Your task to perform on an android device: empty trash in google photos Image 0: 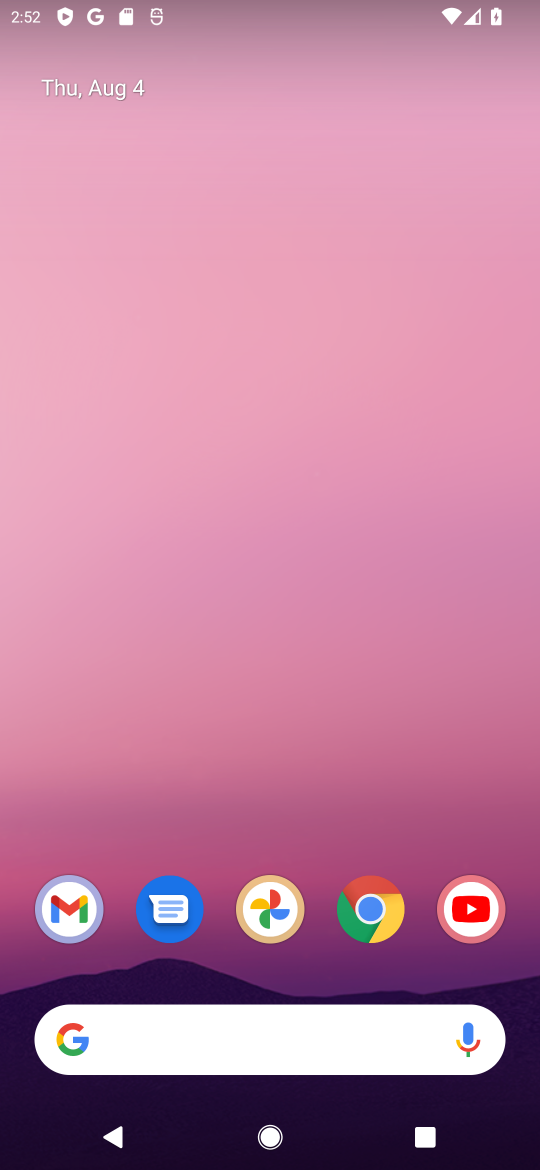
Step 0: press home button
Your task to perform on an android device: empty trash in google photos Image 1: 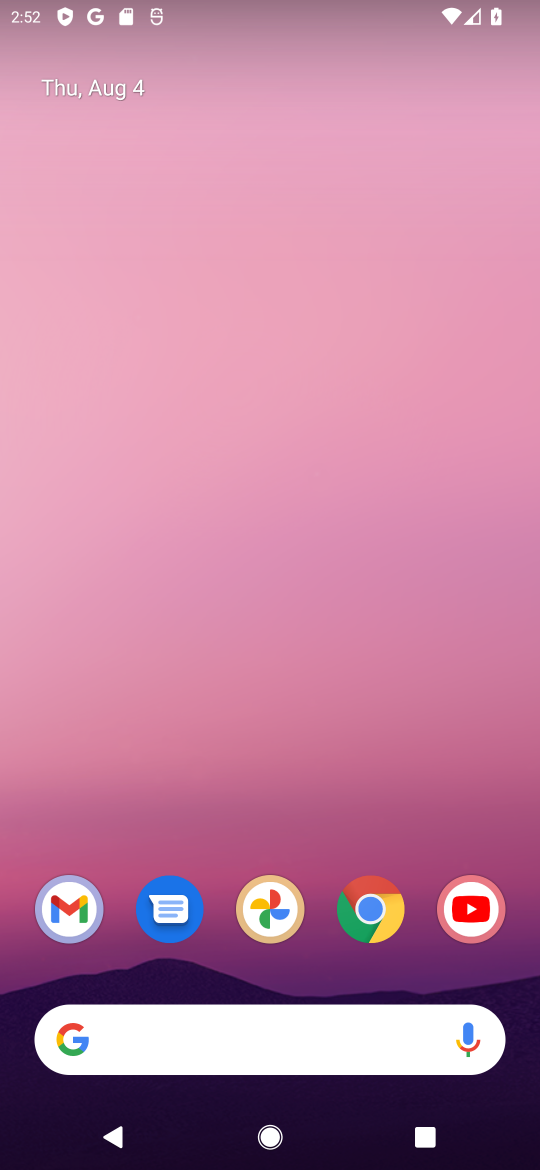
Step 1: click (266, 900)
Your task to perform on an android device: empty trash in google photos Image 2: 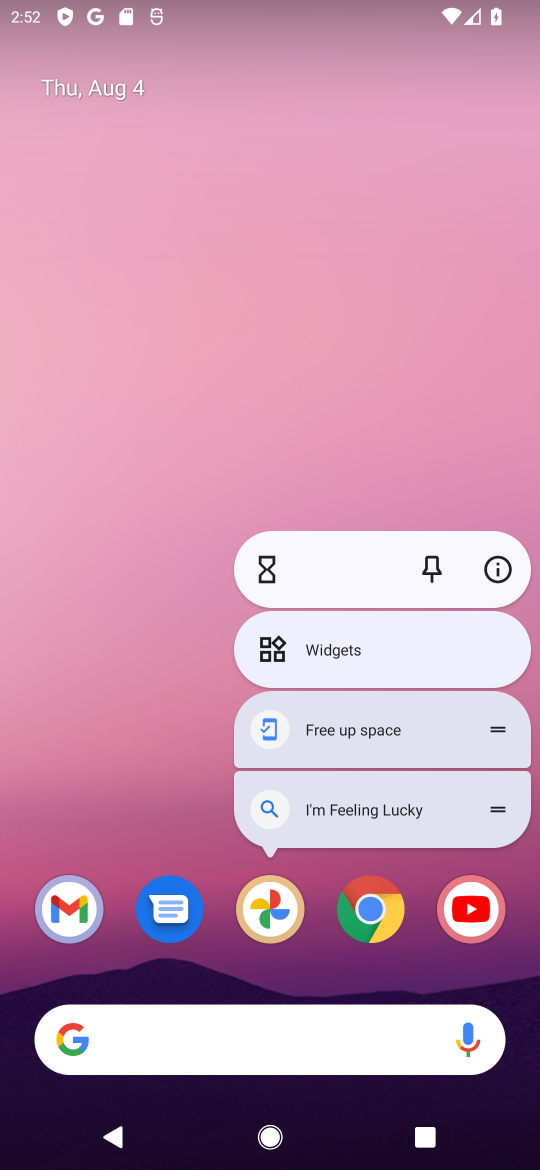
Step 2: click (266, 901)
Your task to perform on an android device: empty trash in google photos Image 3: 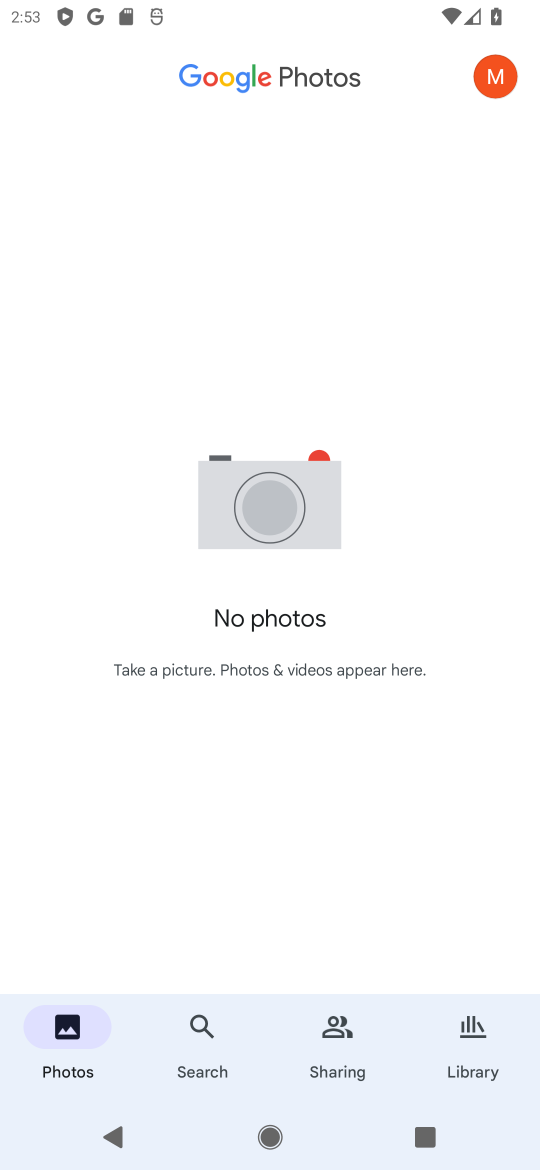
Step 3: click (470, 1028)
Your task to perform on an android device: empty trash in google photos Image 4: 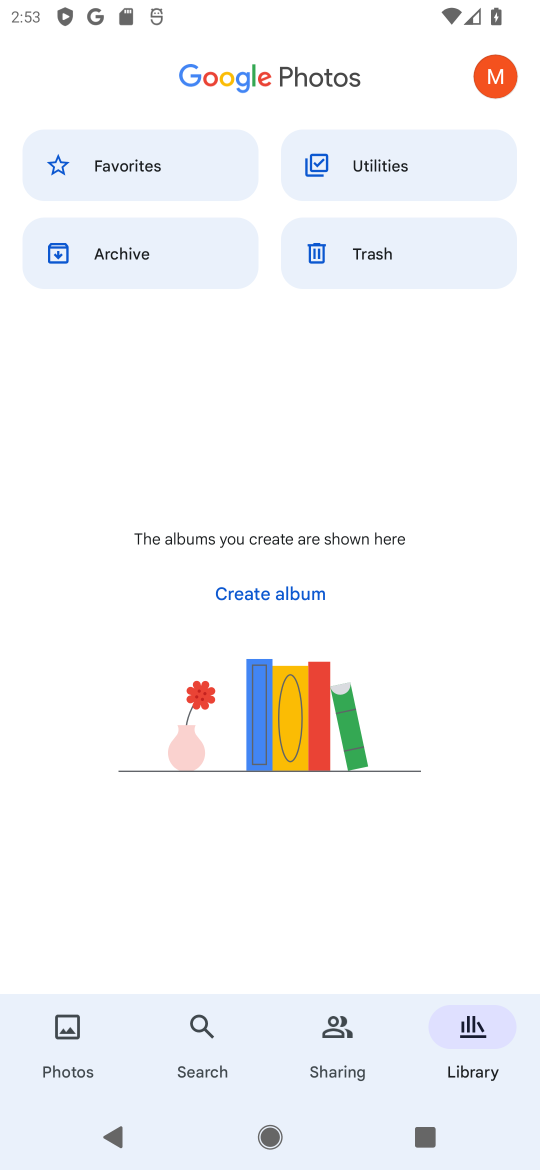
Step 4: click (359, 249)
Your task to perform on an android device: empty trash in google photos Image 5: 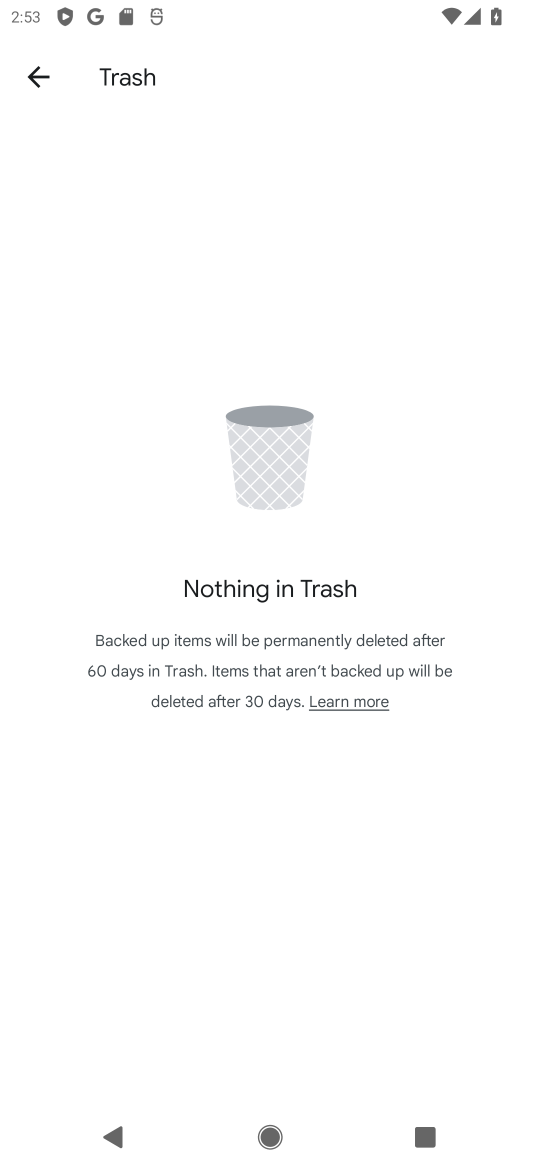
Step 5: task complete